Your task to perform on an android device: Set the phone to "Do not disturb". Image 0: 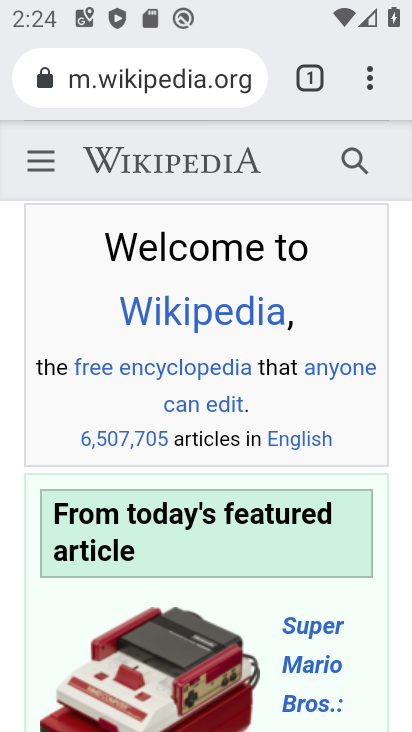
Step 0: drag from (349, 4) to (283, 550)
Your task to perform on an android device: Set the phone to "Do not disturb". Image 1: 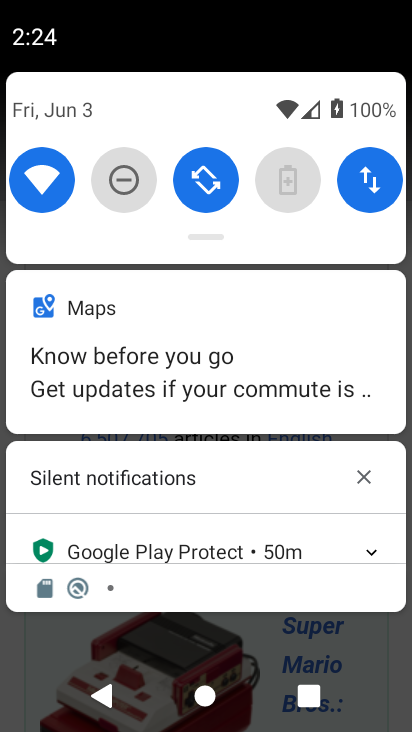
Step 1: click (116, 195)
Your task to perform on an android device: Set the phone to "Do not disturb". Image 2: 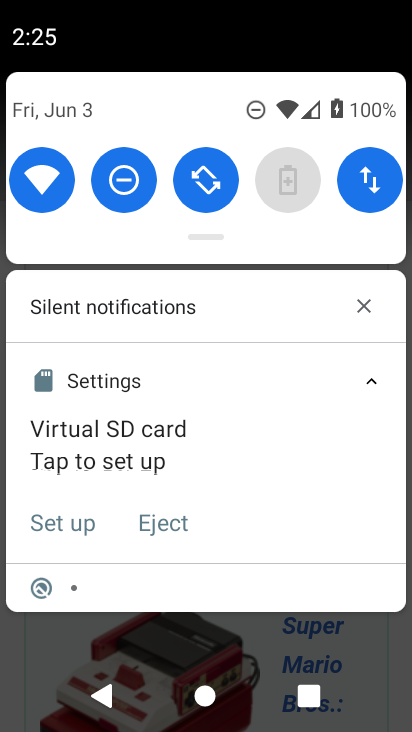
Step 2: task complete